Your task to perform on an android device: Open Maps and search for coffee Image 0: 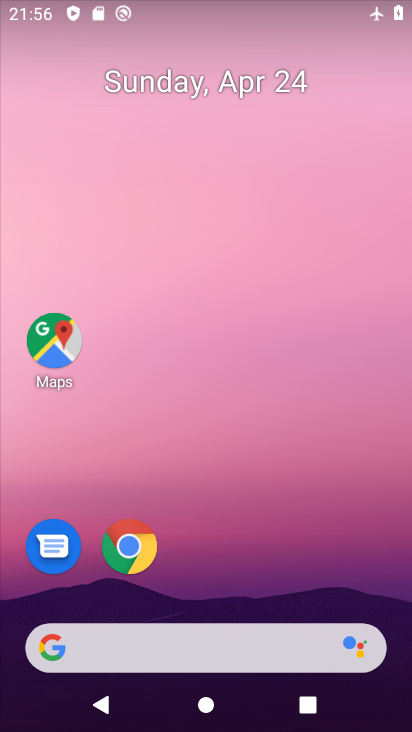
Step 0: drag from (267, 555) to (273, 218)
Your task to perform on an android device: Open Maps and search for coffee Image 1: 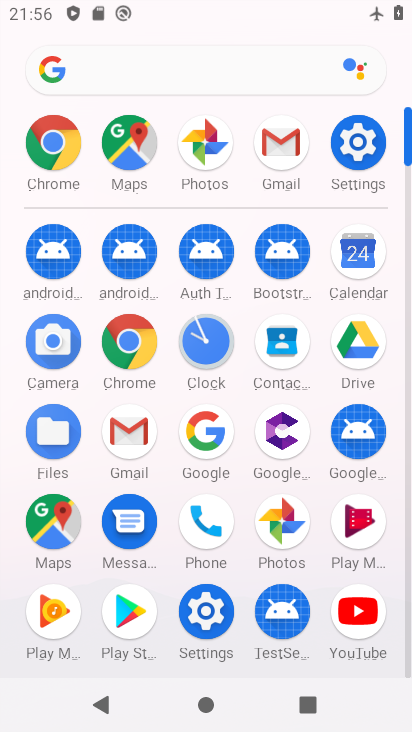
Step 1: click (40, 510)
Your task to perform on an android device: Open Maps and search for coffee Image 2: 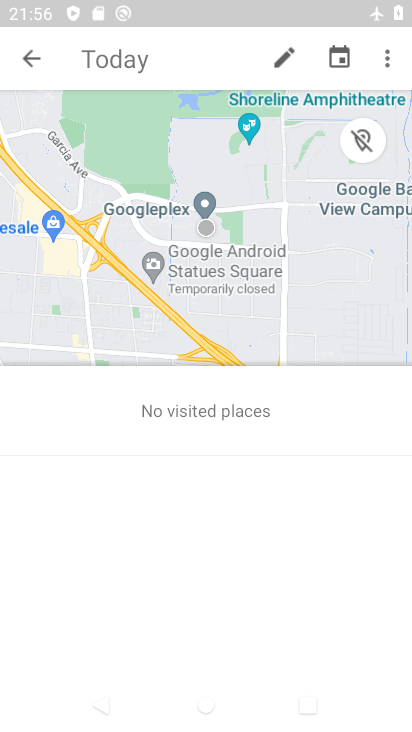
Step 2: click (29, 68)
Your task to perform on an android device: Open Maps and search for coffee Image 3: 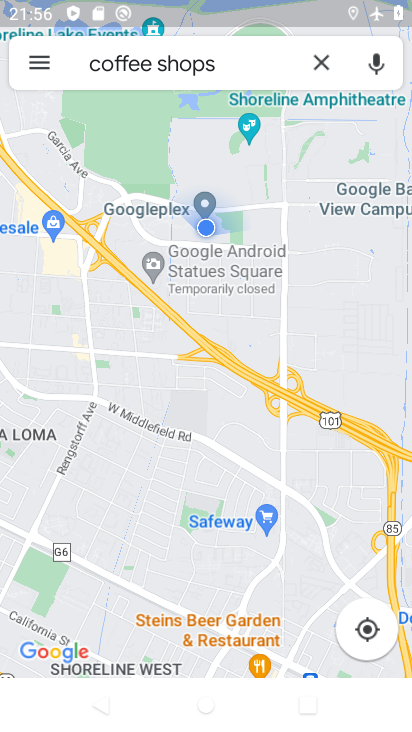
Step 3: click (316, 63)
Your task to perform on an android device: Open Maps and search for coffee Image 4: 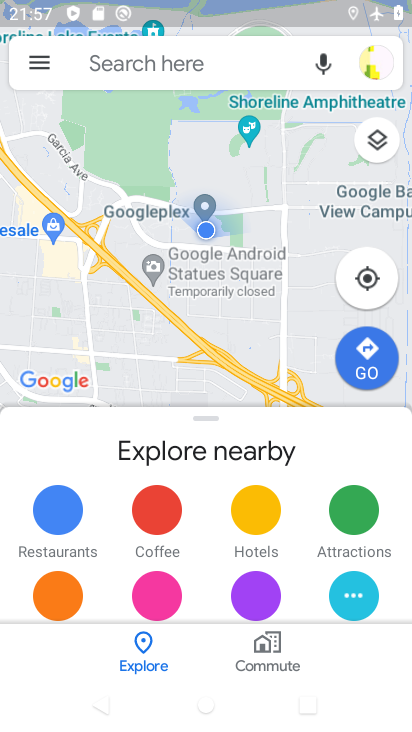
Step 4: click (148, 56)
Your task to perform on an android device: Open Maps and search for coffee Image 5: 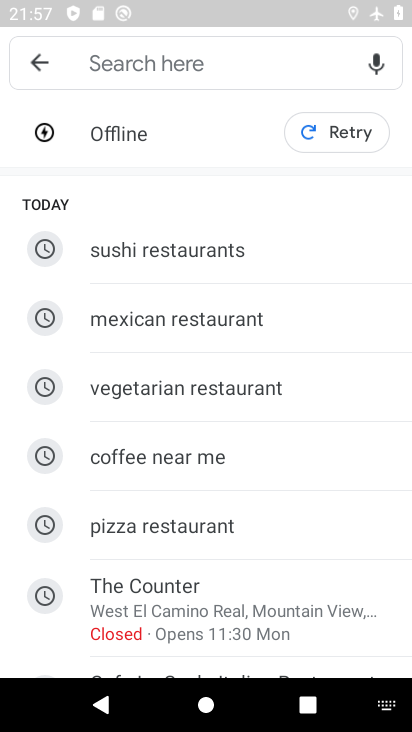
Step 5: type "coffee"
Your task to perform on an android device: Open Maps and search for coffee Image 6: 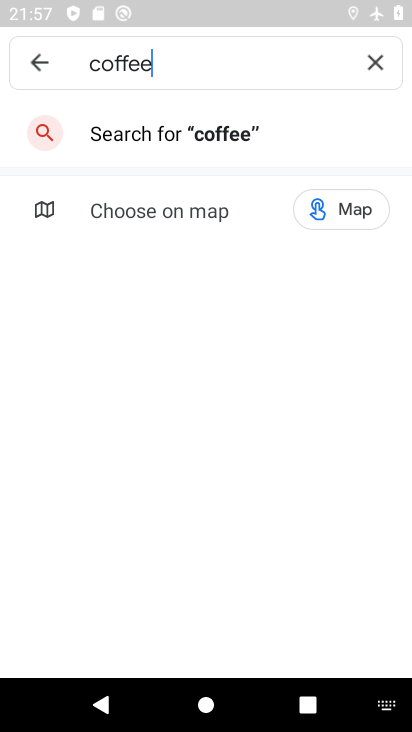
Step 6: click (218, 138)
Your task to perform on an android device: Open Maps and search for coffee Image 7: 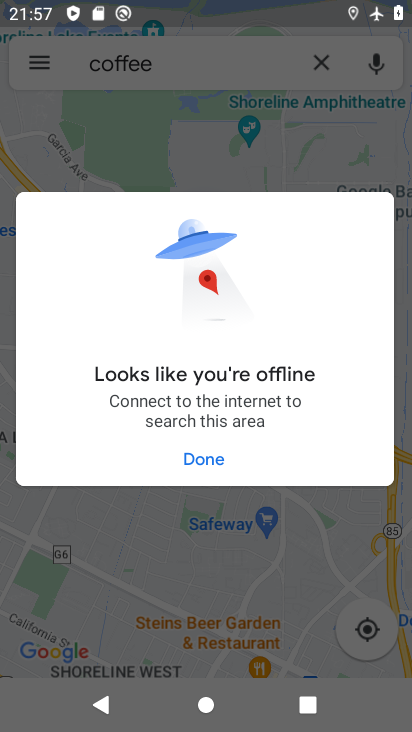
Step 7: click (194, 456)
Your task to perform on an android device: Open Maps and search for coffee Image 8: 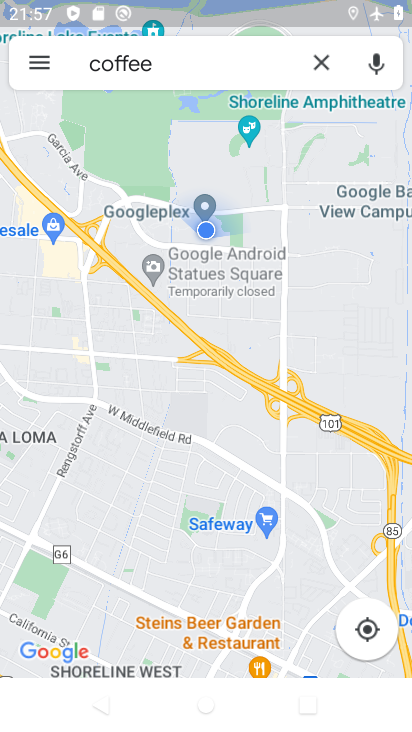
Step 8: task complete